Your task to perform on an android device: Open Wikipedia Image 0: 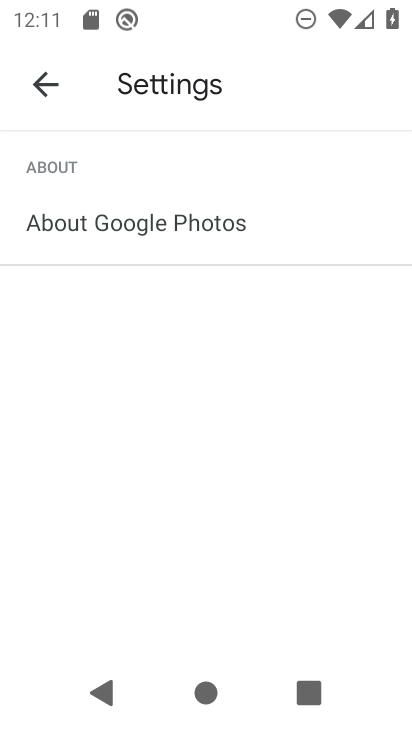
Step 0: press home button
Your task to perform on an android device: Open Wikipedia Image 1: 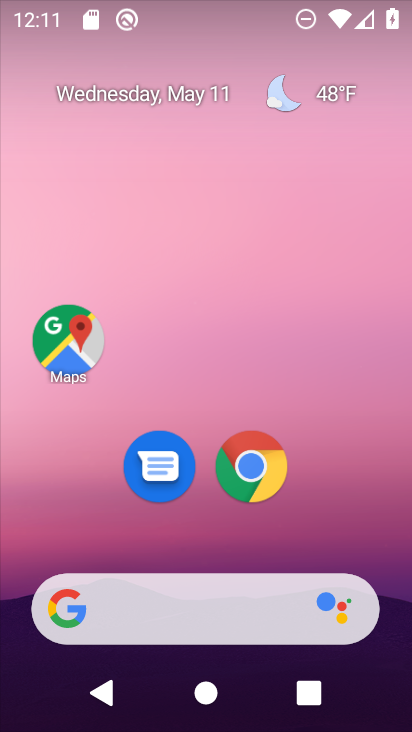
Step 1: click (247, 460)
Your task to perform on an android device: Open Wikipedia Image 2: 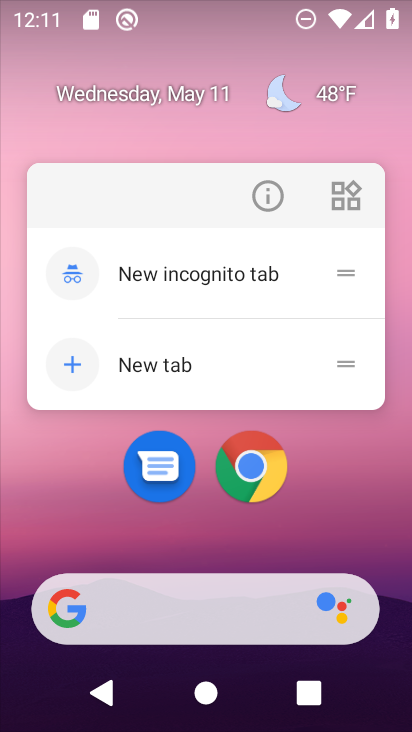
Step 2: click (247, 460)
Your task to perform on an android device: Open Wikipedia Image 3: 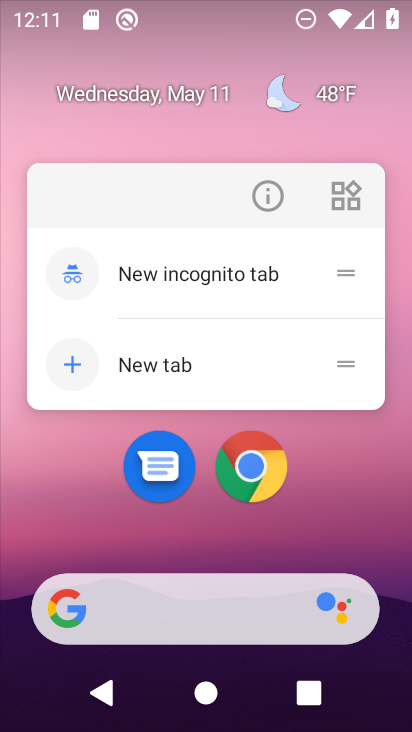
Step 3: click (321, 523)
Your task to perform on an android device: Open Wikipedia Image 4: 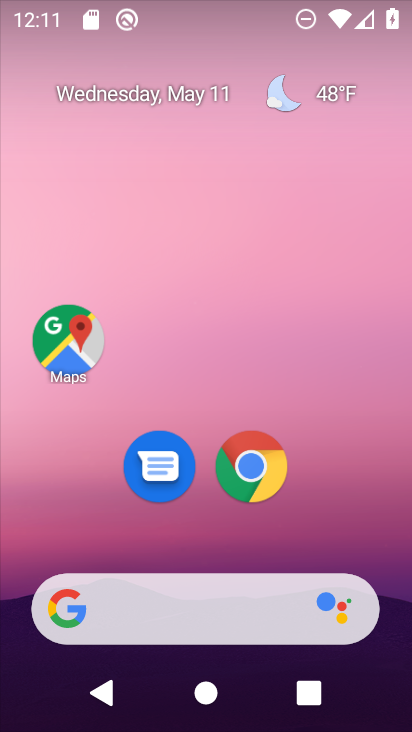
Step 4: drag from (316, 544) to (320, 50)
Your task to perform on an android device: Open Wikipedia Image 5: 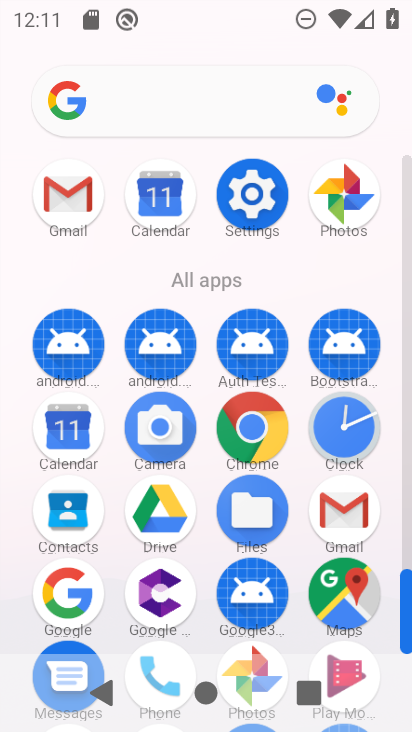
Step 5: click (254, 420)
Your task to perform on an android device: Open Wikipedia Image 6: 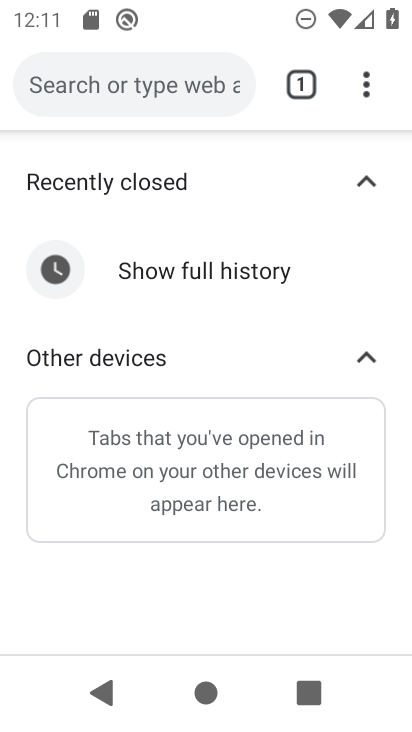
Step 6: click (364, 80)
Your task to perform on an android device: Open Wikipedia Image 7: 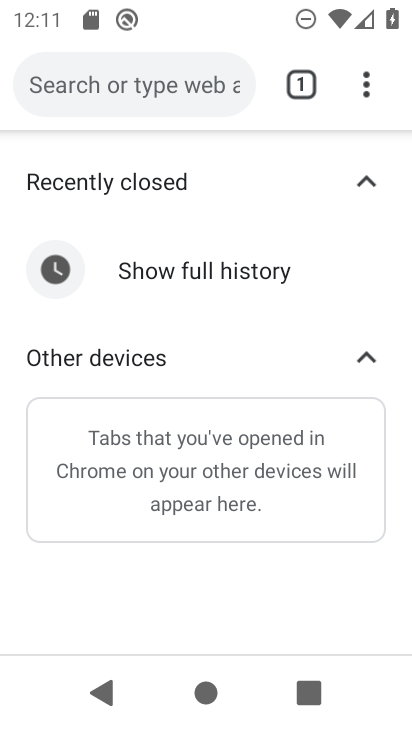
Step 7: click (303, 81)
Your task to perform on an android device: Open Wikipedia Image 8: 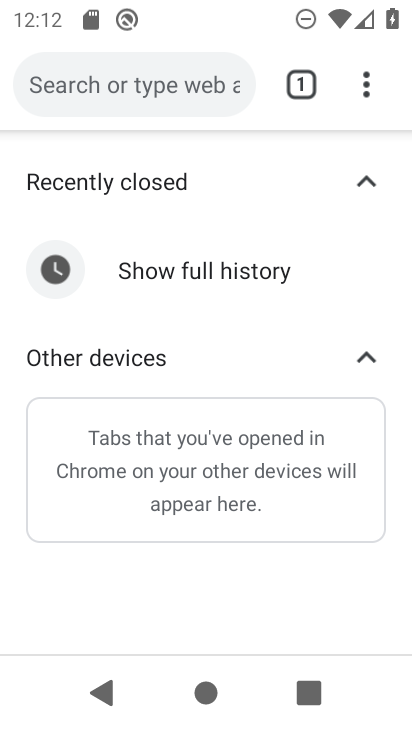
Step 8: click (299, 76)
Your task to perform on an android device: Open Wikipedia Image 9: 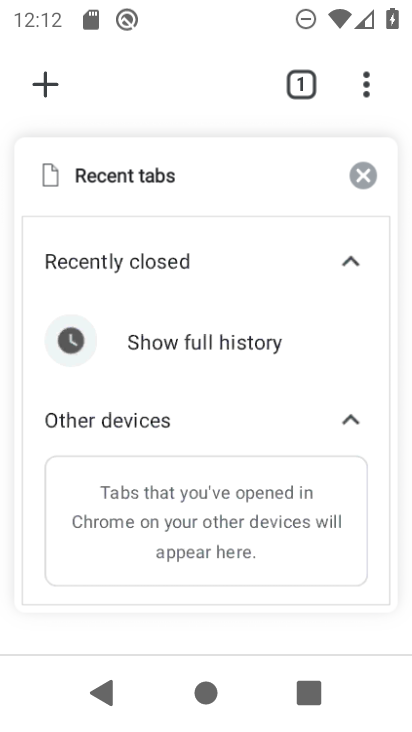
Step 9: click (360, 166)
Your task to perform on an android device: Open Wikipedia Image 10: 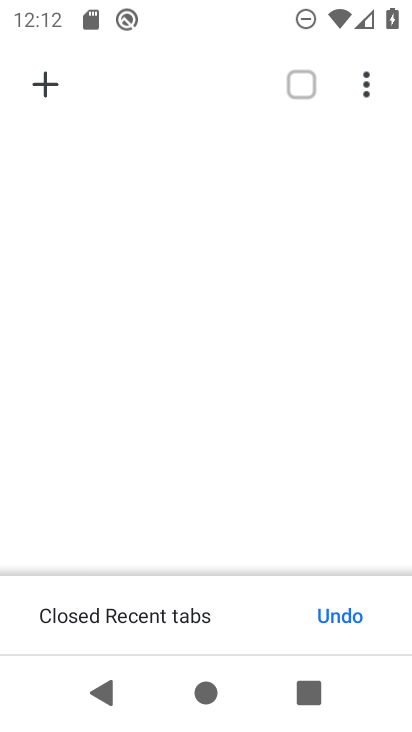
Step 10: click (48, 80)
Your task to perform on an android device: Open Wikipedia Image 11: 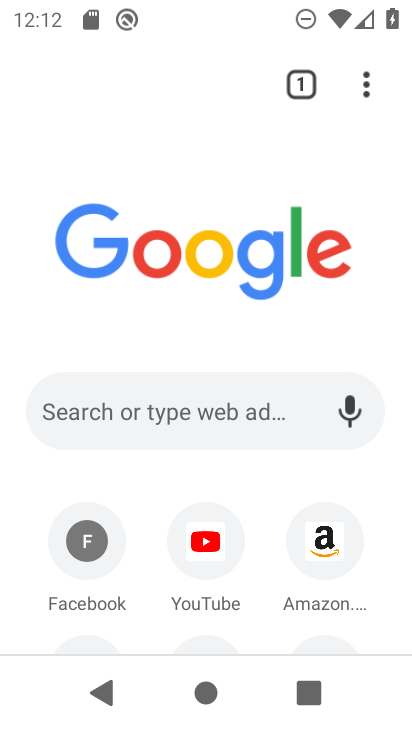
Step 11: click (154, 404)
Your task to perform on an android device: Open Wikipedia Image 12: 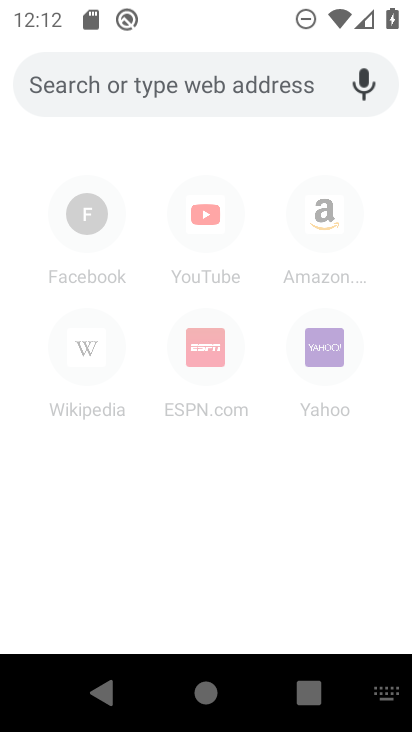
Step 12: type "wikipedia"
Your task to perform on an android device: Open Wikipedia Image 13: 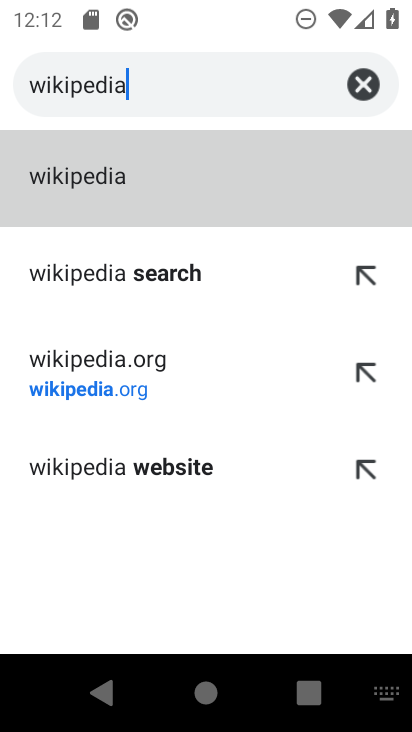
Step 13: click (163, 381)
Your task to perform on an android device: Open Wikipedia Image 14: 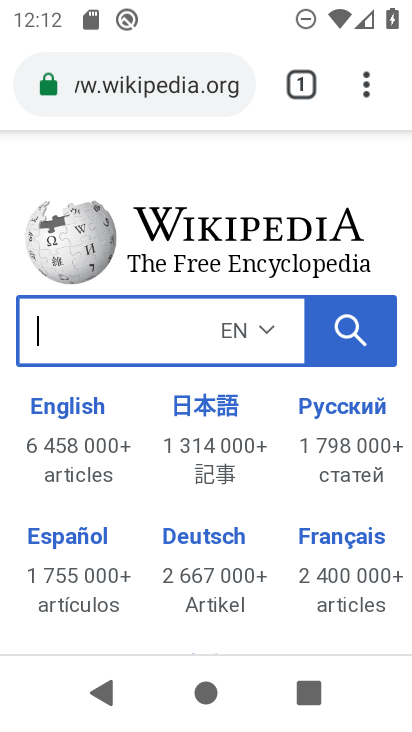
Step 14: task complete